Your task to perform on an android device: turn on the 12-hour format for clock Image 0: 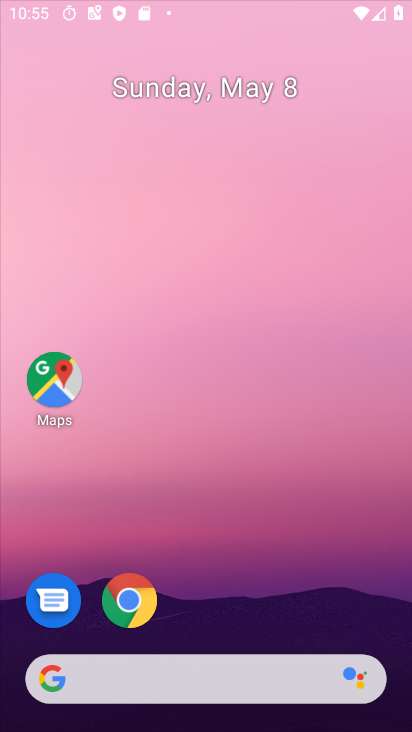
Step 0: drag from (319, 92) to (274, 188)
Your task to perform on an android device: turn on the 12-hour format for clock Image 1: 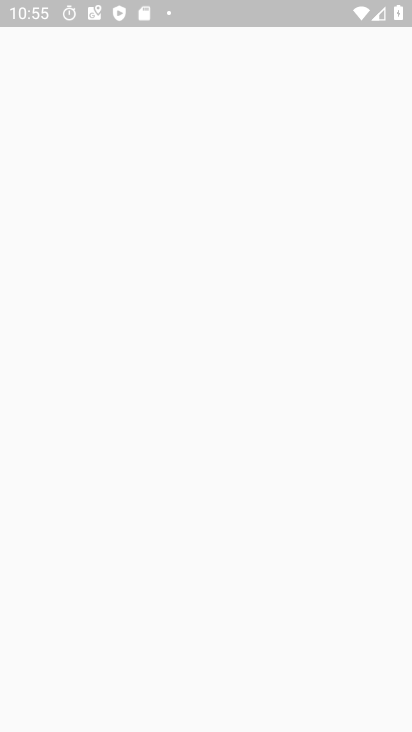
Step 1: press home button
Your task to perform on an android device: turn on the 12-hour format for clock Image 2: 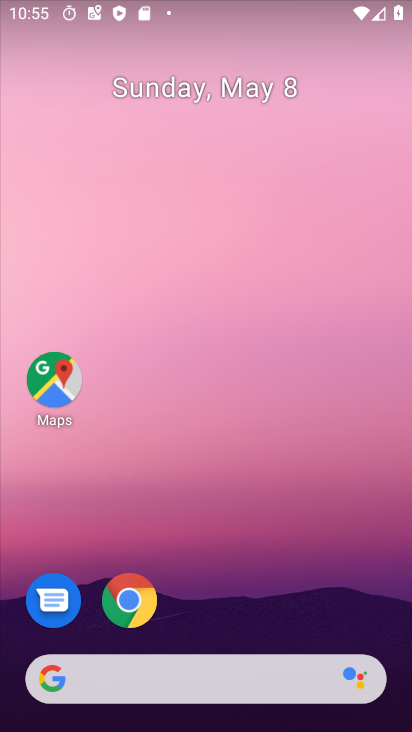
Step 2: drag from (18, 617) to (272, 151)
Your task to perform on an android device: turn on the 12-hour format for clock Image 3: 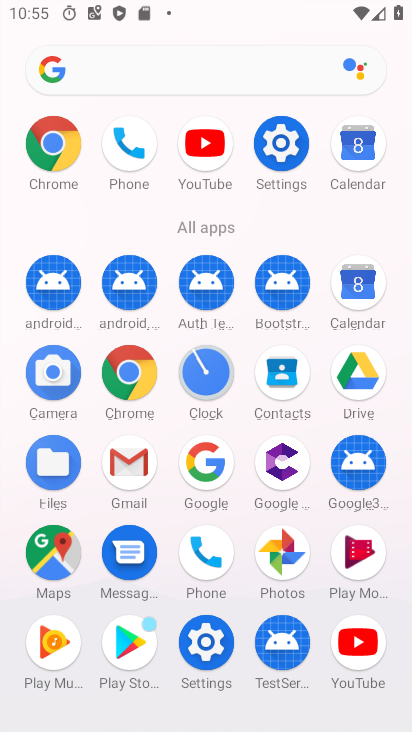
Step 3: click (217, 374)
Your task to perform on an android device: turn on the 12-hour format for clock Image 4: 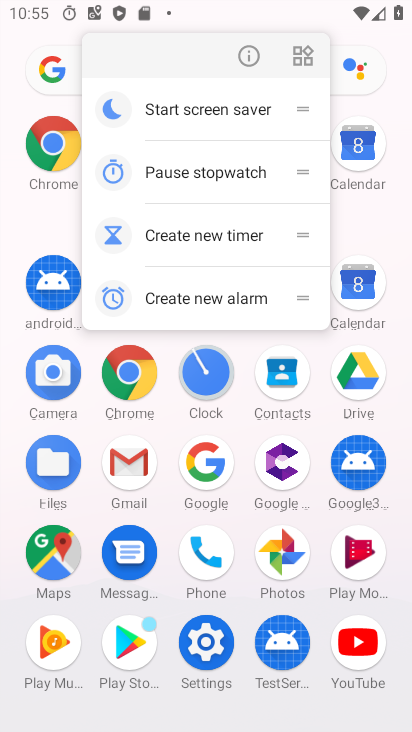
Step 4: click (250, 67)
Your task to perform on an android device: turn on the 12-hour format for clock Image 5: 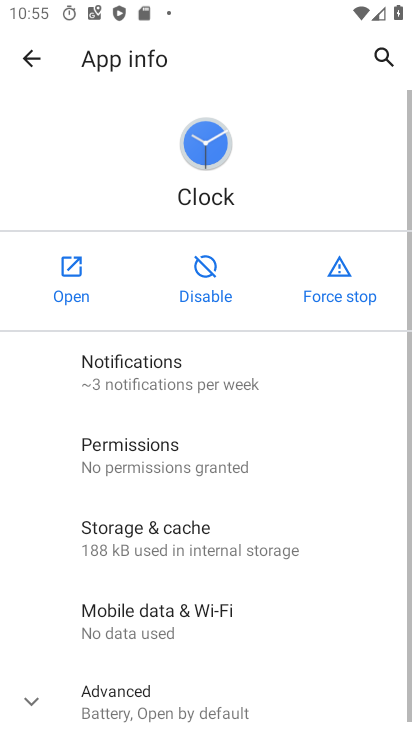
Step 5: click (62, 288)
Your task to perform on an android device: turn on the 12-hour format for clock Image 6: 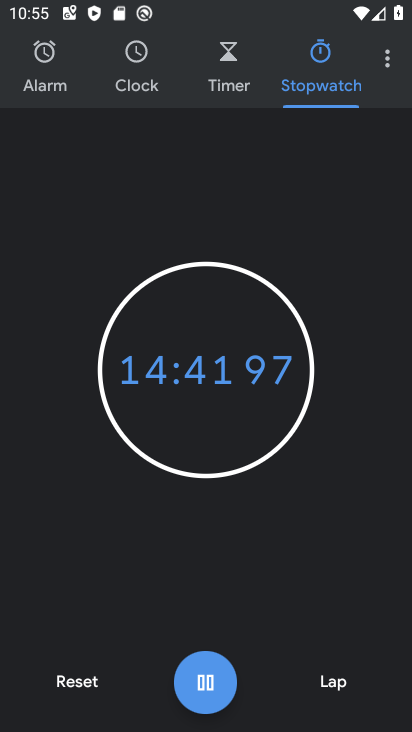
Step 6: click (387, 56)
Your task to perform on an android device: turn on the 12-hour format for clock Image 7: 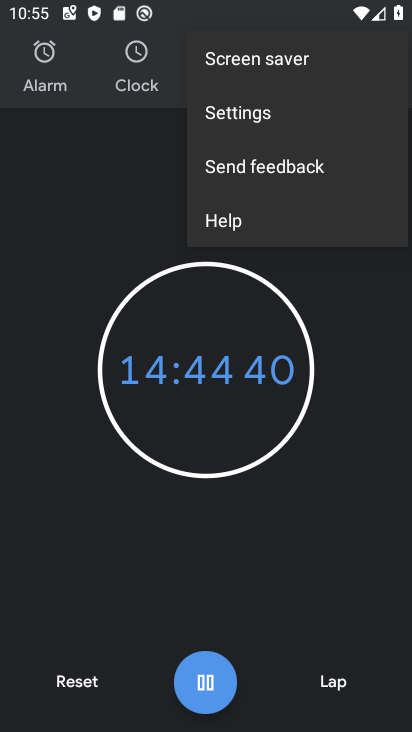
Step 7: click (307, 111)
Your task to perform on an android device: turn on the 12-hour format for clock Image 8: 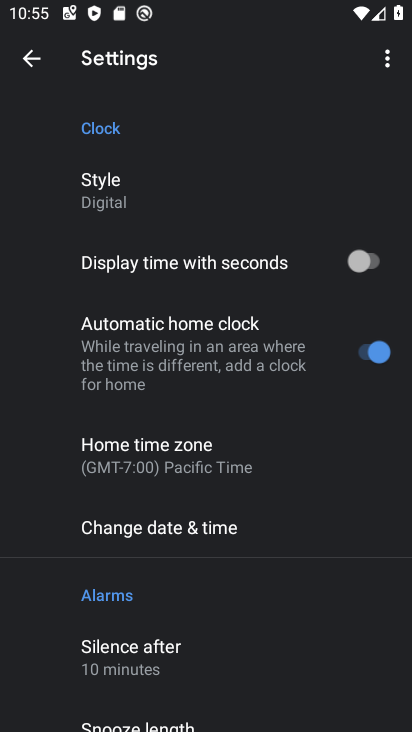
Step 8: drag from (84, 630) to (177, 392)
Your task to perform on an android device: turn on the 12-hour format for clock Image 9: 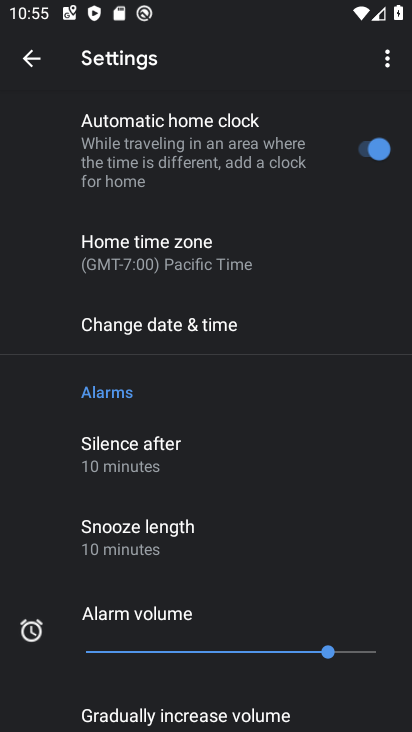
Step 9: click (142, 323)
Your task to perform on an android device: turn on the 12-hour format for clock Image 10: 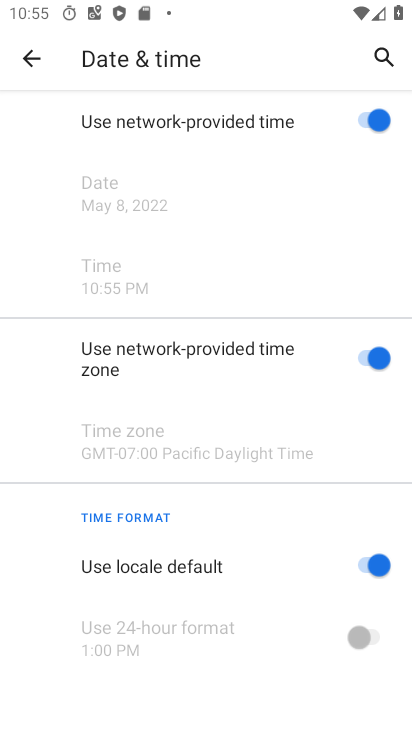
Step 10: task complete